Your task to perform on an android device: check storage Image 0: 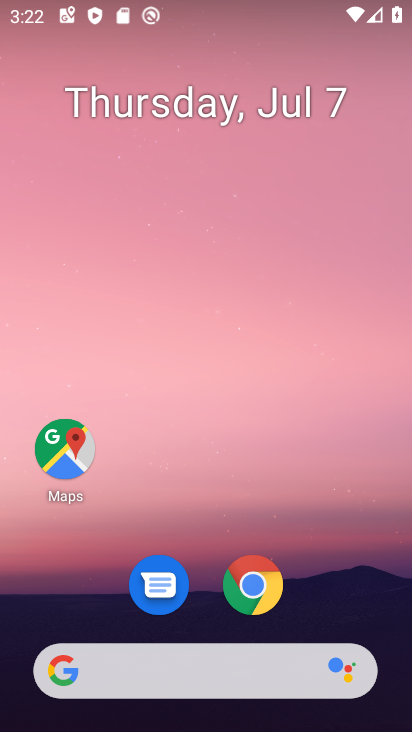
Step 0: drag from (298, 511) to (255, 6)
Your task to perform on an android device: check storage Image 1: 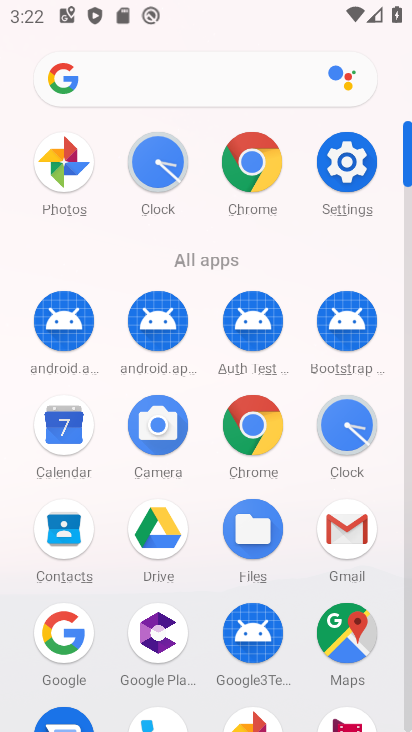
Step 1: click (342, 159)
Your task to perform on an android device: check storage Image 2: 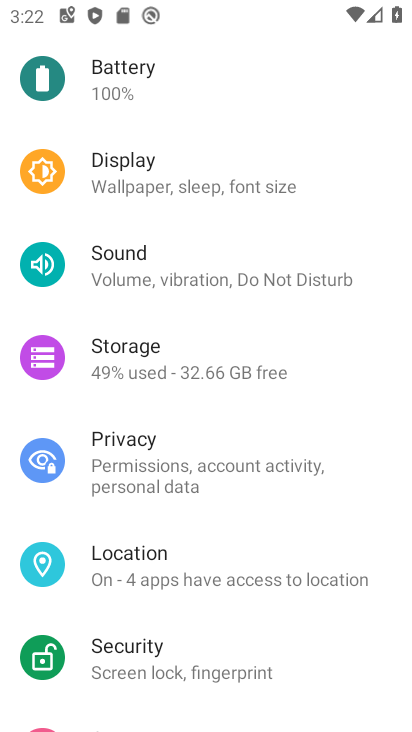
Step 2: click (257, 349)
Your task to perform on an android device: check storage Image 3: 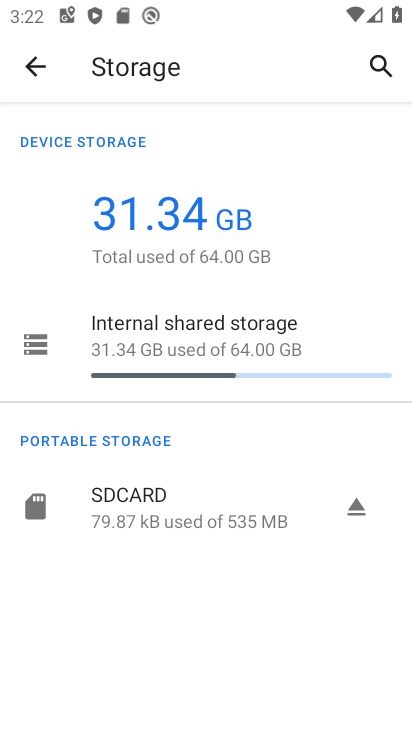
Step 3: task complete